Your task to perform on an android device: open app "Firefox Browser" (install if not already installed) Image 0: 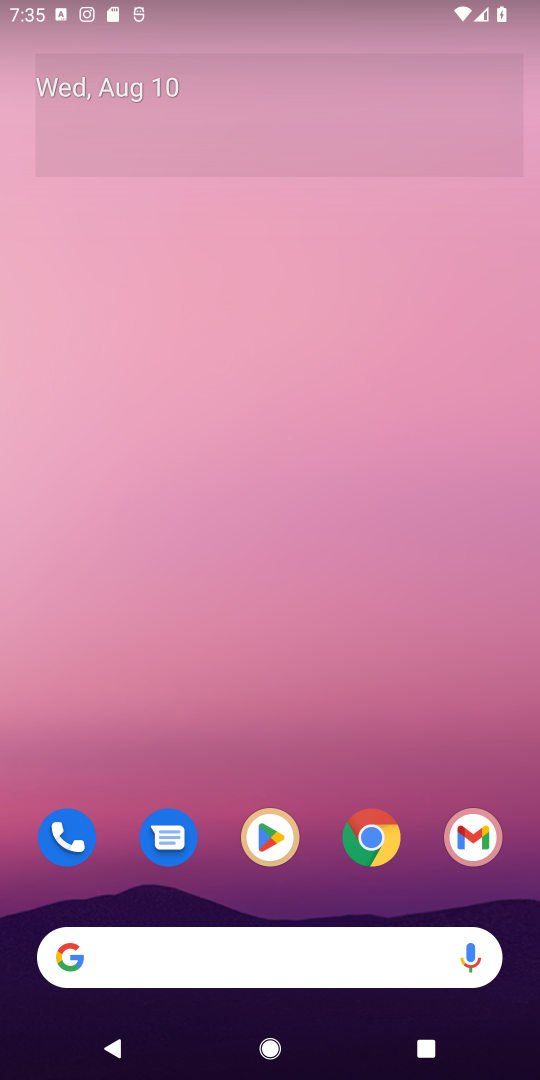
Step 0: click (261, 836)
Your task to perform on an android device: open app "Firefox Browser" (install if not already installed) Image 1: 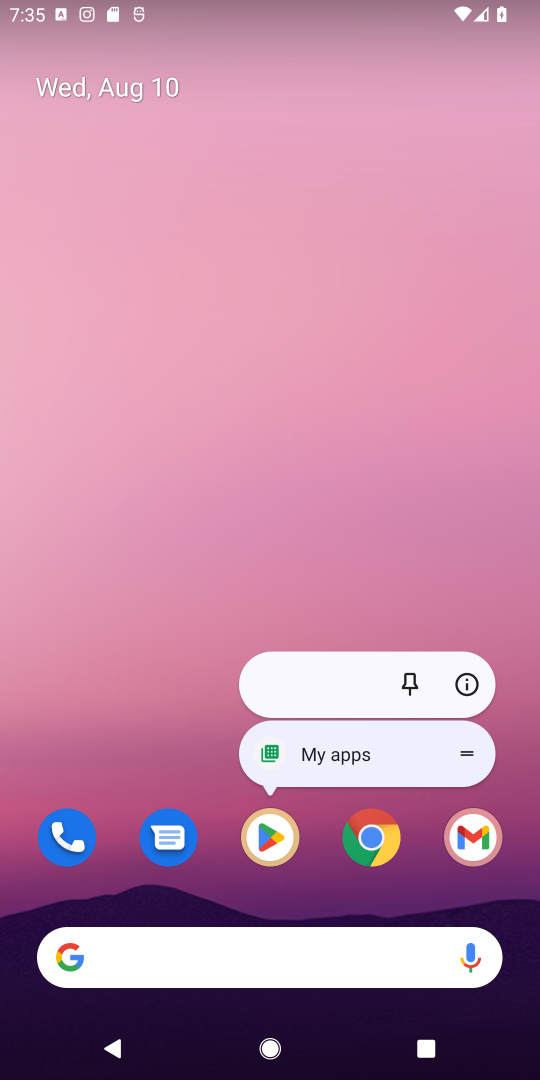
Step 1: click (270, 837)
Your task to perform on an android device: open app "Firefox Browser" (install if not already installed) Image 2: 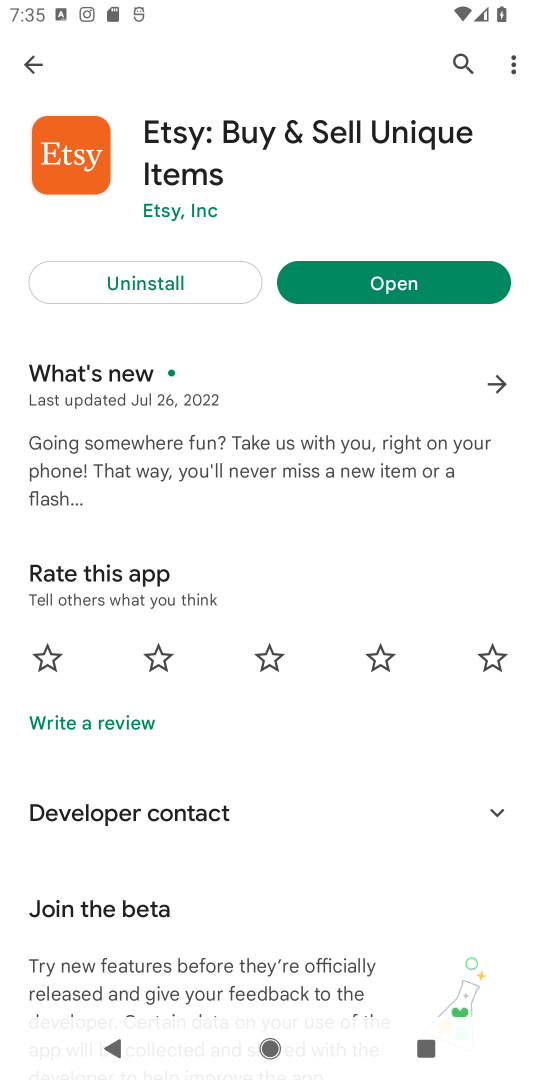
Step 2: click (462, 60)
Your task to perform on an android device: open app "Firefox Browser" (install if not already installed) Image 3: 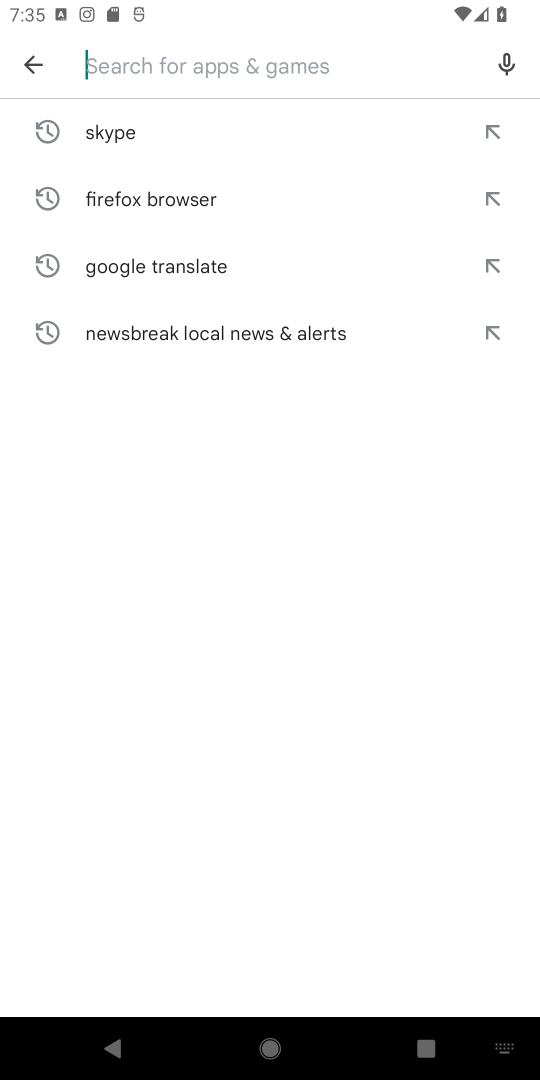
Step 3: type "Firefox Browser"
Your task to perform on an android device: open app "Firefox Browser" (install if not already installed) Image 4: 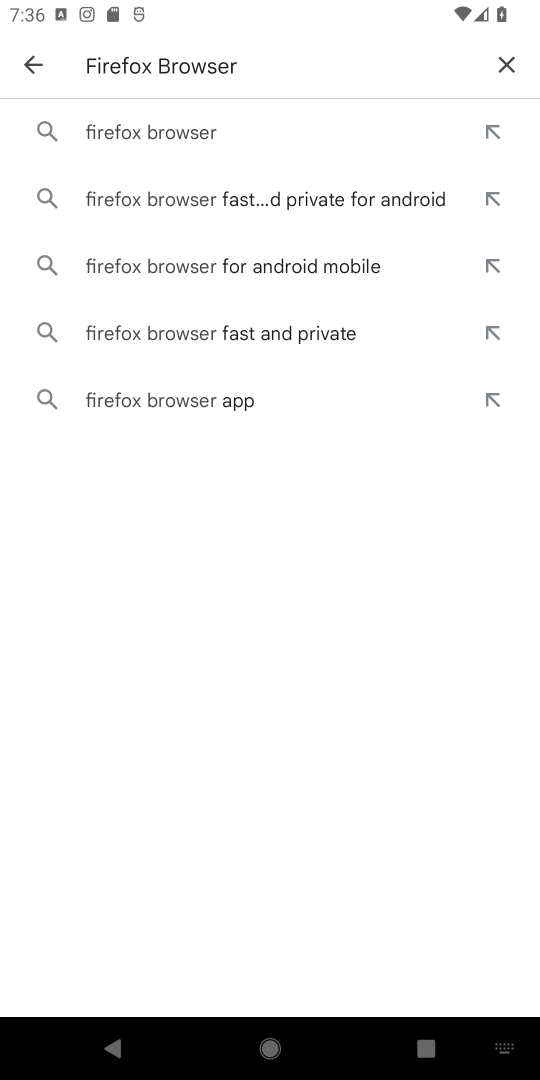
Step 4: click (186, 130)
Your task to perform on an android device: open app "Firefox Browser" (install if not already installed) Image 5: 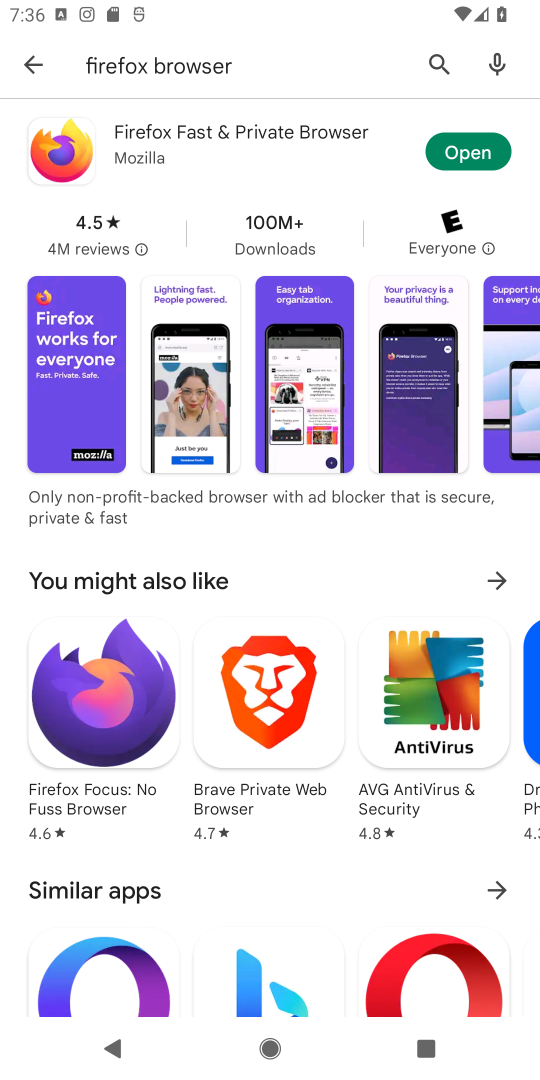
Step 5: click (479, 159)
Your task to perform on an android device: open app "Firefox Browser" (install if not already installed) Image 6: 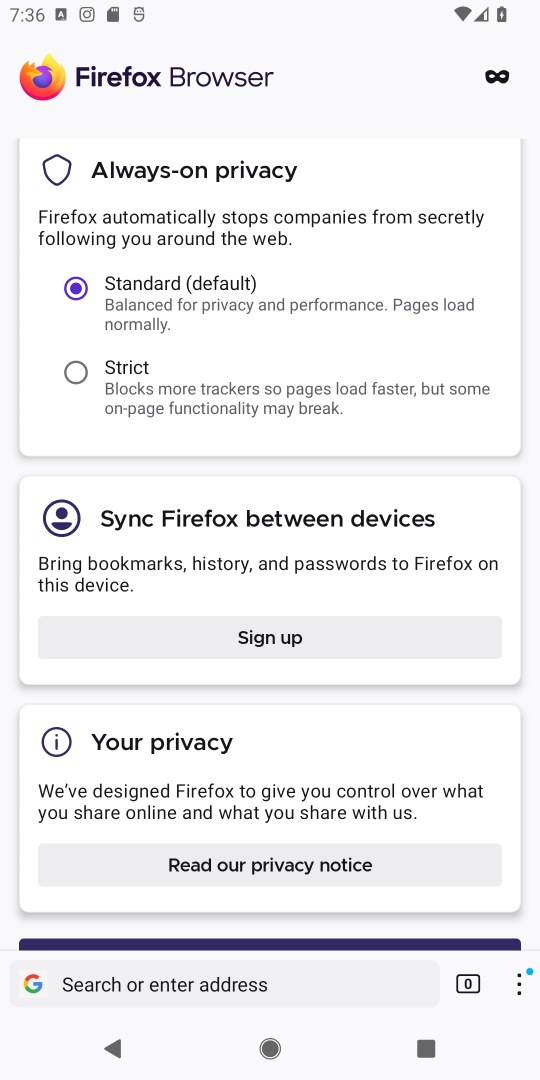
Step 6: task complete